Your task to perform on an android device: Open notification settings Image 0: 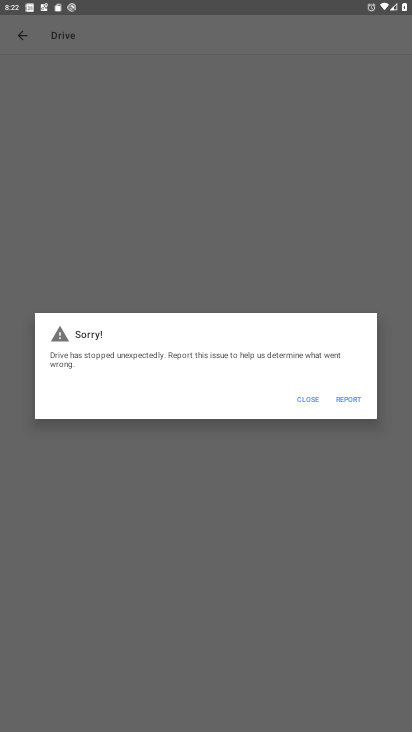
Step 0: press home button
Your task to perform on an android device: Open notification settings Image 1: 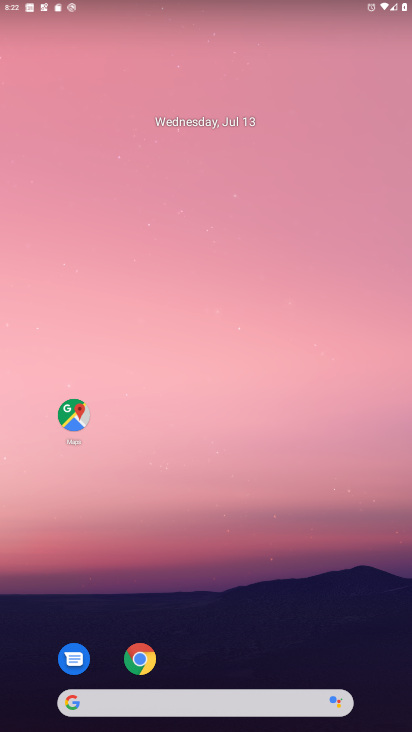
Step 1: drag from (247, 562) to (185, 181)
Your task to perform on an android device: Open notification settings Image 2: 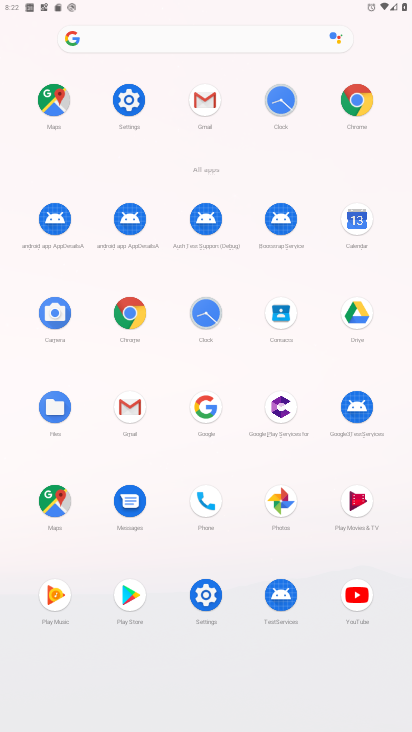
Step 2: click (130, 96)
Your task to perform on an android device: Open notification settings Image 3: 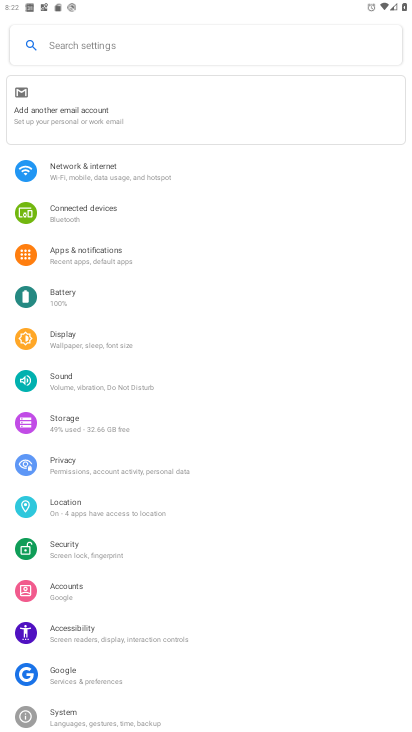
Step 3: click (97, 249)
Your task to perform on an android device: Open notification settings Image 4: 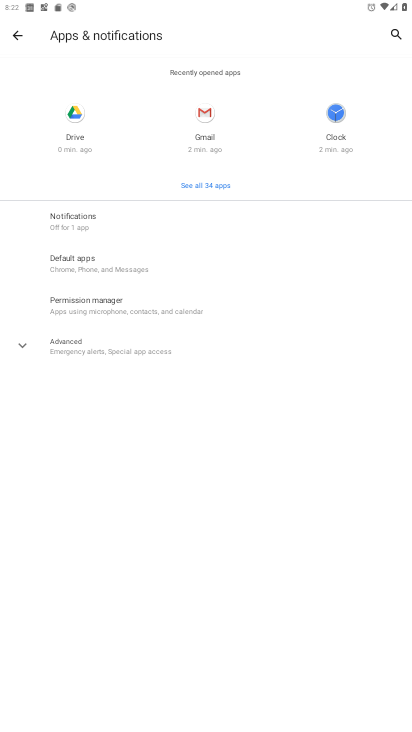
Step 4: task complete